Your task to perform on an android device: toggle data saver in the chrome app Image 0: 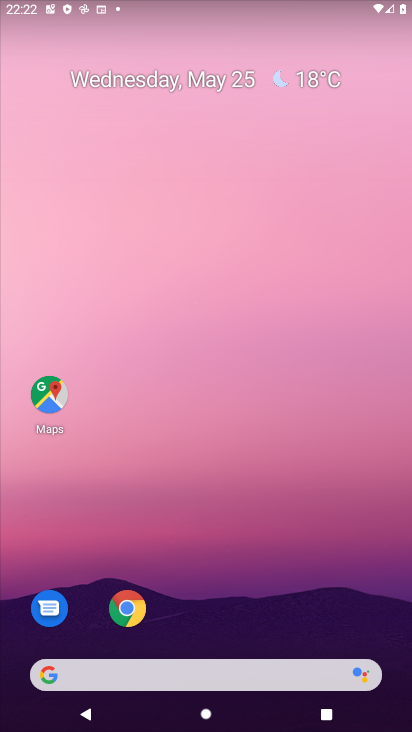
Step 0: click (133, 606)
Your task to perform on an android device: toggle data saver in the chrome app Image 1: 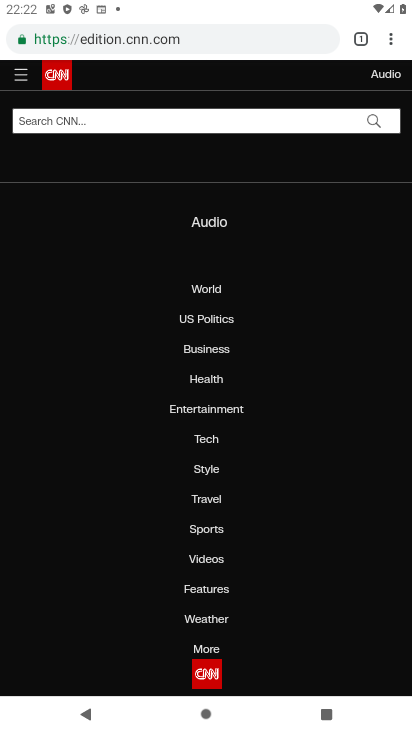
Step 1: click (392, 29)
Your task to perform on an android device: toggle data saver in the chrome app Image 2: 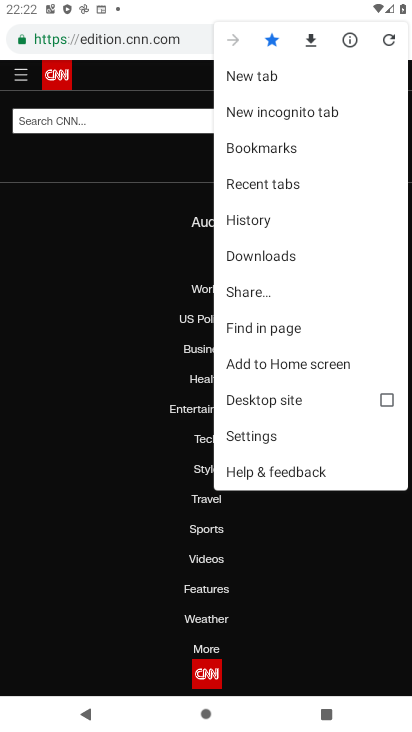
Step 2: click (296, 430)
Your task to perform on an android device: toggle data saver in the chrome app Image 3: 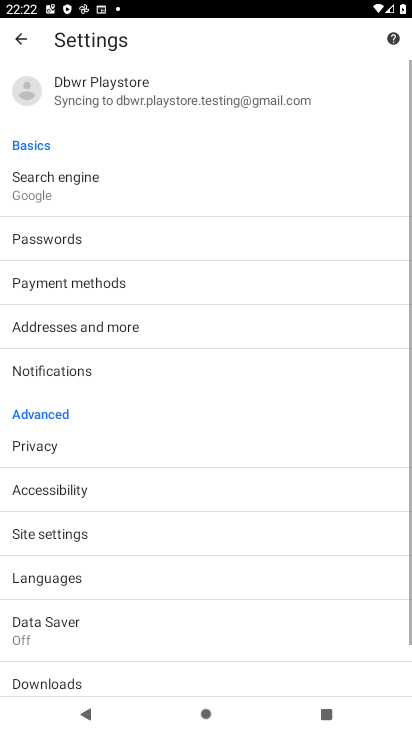
Step 3: drag from (205, 617) to (194, 383)
Your task to perform on an android device: toggle data saver in the chrome app Image 4: 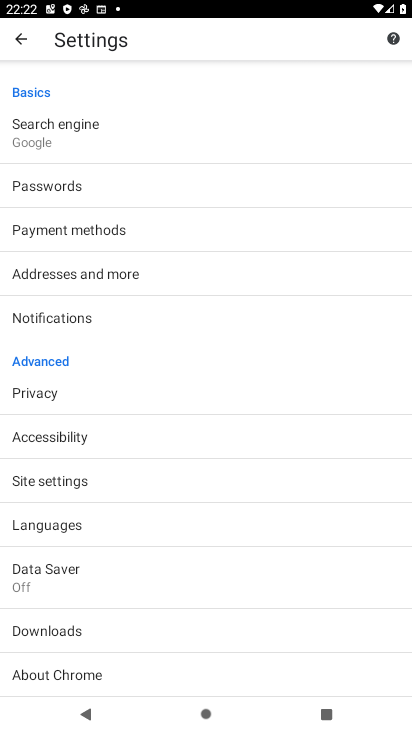
Step 4: click (87, 562)
Your task to perform on an android device: toggle data saver in the chrome app Image 5: 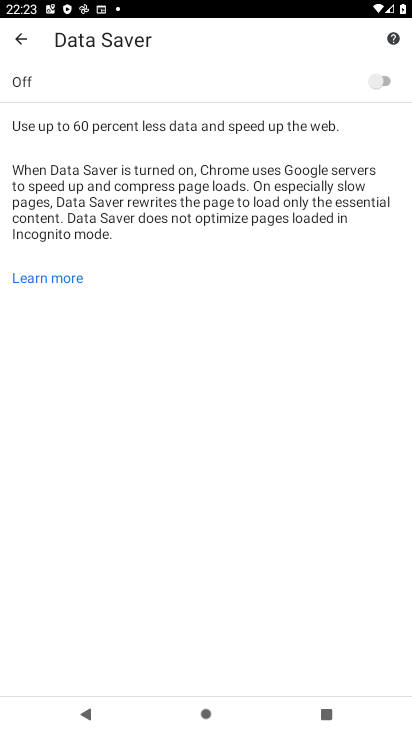
Step 5: click (373, 68)
Your task to perform on an android device: toggle data saver in the chrome app Image 6: 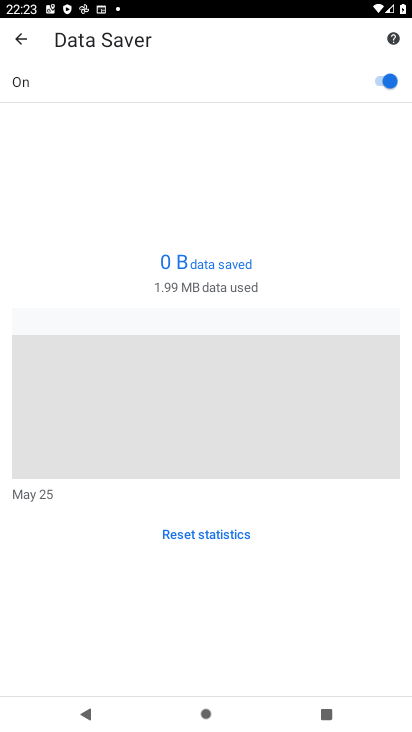
Step 6: task complete